Your task to perform on an android device: find which apps use the phone's location Image 0: 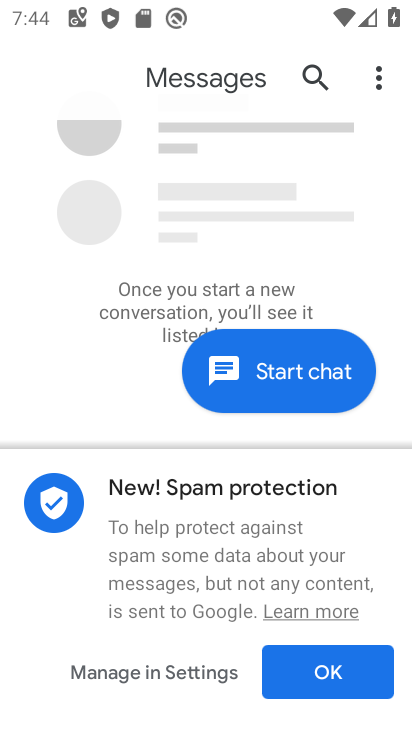
Step 0: press home button
Your task to perform on an android device: find which apps use the phone's location Image 1: 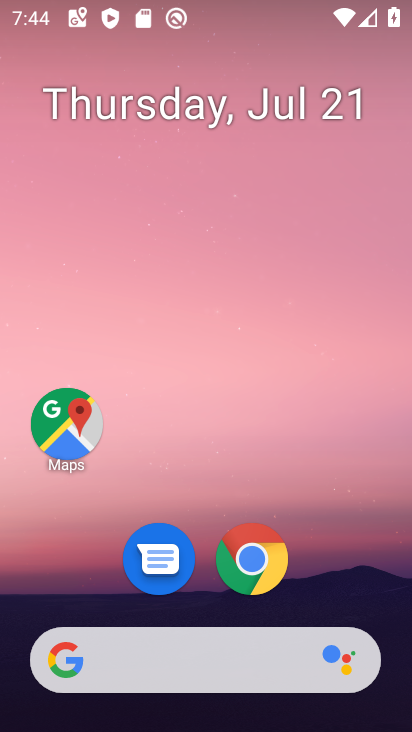
Step 1: drag from (225, 448) to (291, 179)
Your task to perform on an android device: find which apps use the phone's location Image 2: 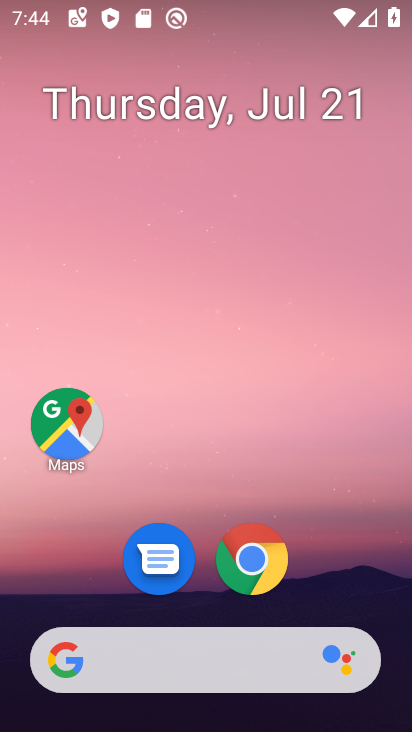
Step 2: drag from (189, 624) to (267, 15)
Your task to perform on an android device: find which apps use the phone's location Image 3: 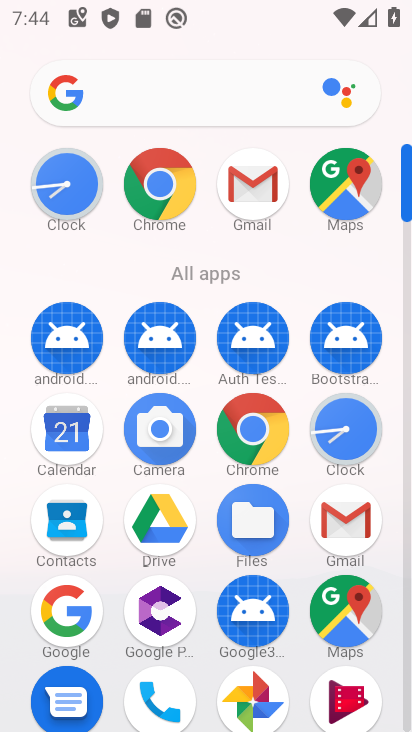
Step 3: drag from (147, 455) to (251, 85)
Your task to perform on an android device: find which apps use the phone's location Image 4: 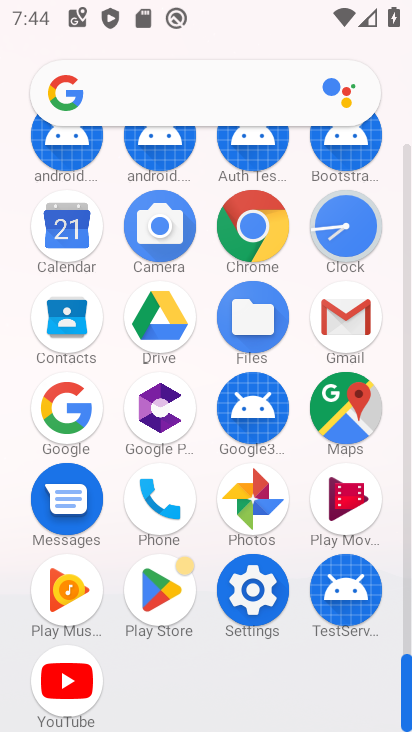
Step 4: click (233, 597)
Your task to perform on an android device: find which apps use the phone's location Image 5: 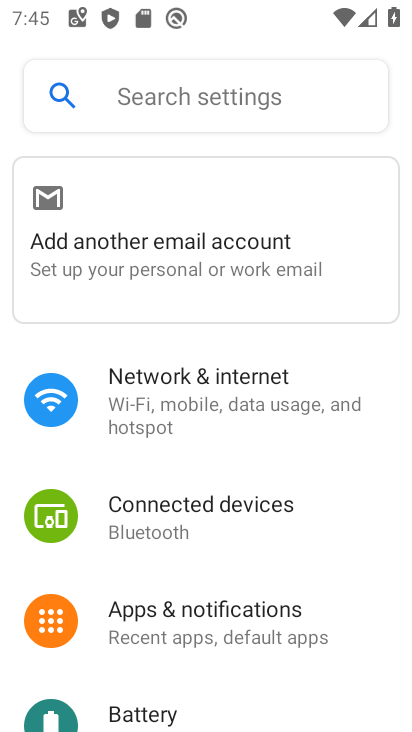
Step 5: drag from (209, 559) to (314, 12)
Your task to perform on an android device: find which apps use the phone's location Image 6: 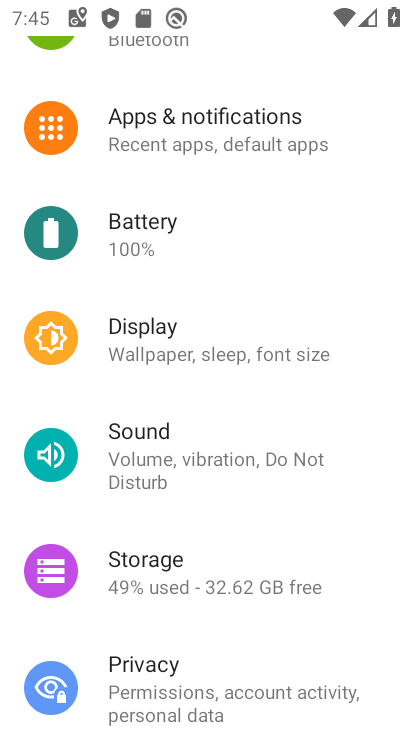
Step 6: drag from (237, 545) to (283, 226)
Your task to perform on an android device: find which apps use the phone's location Image 7: 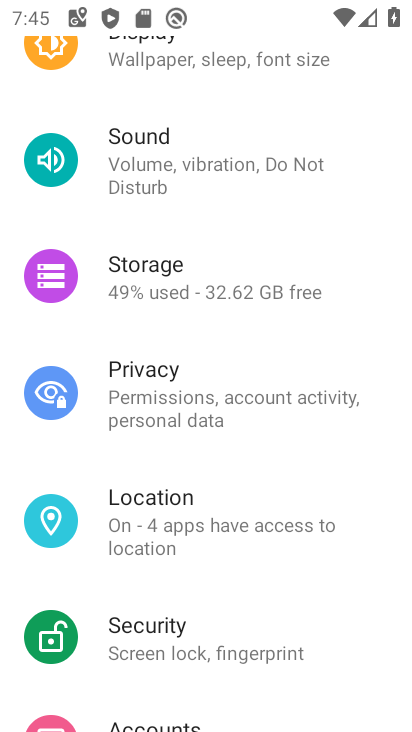
Step 7: click (232, 538)
Your task to perform on an android device: find which apps use the phone's location Image 8: 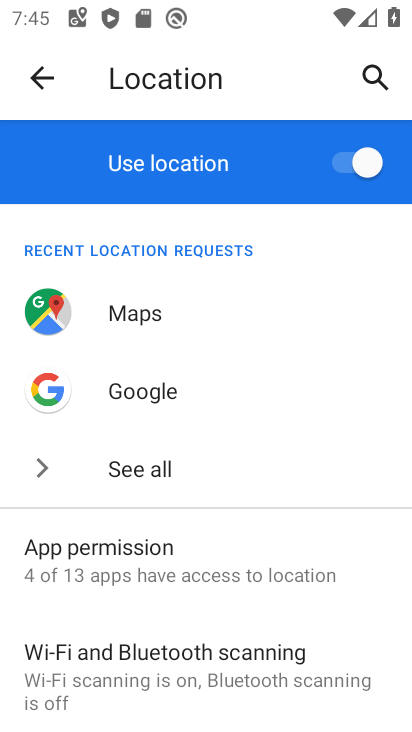
Step 8: click (205, 560)
Your task to perform on an android device: find which apps use the phone's location Image 9: 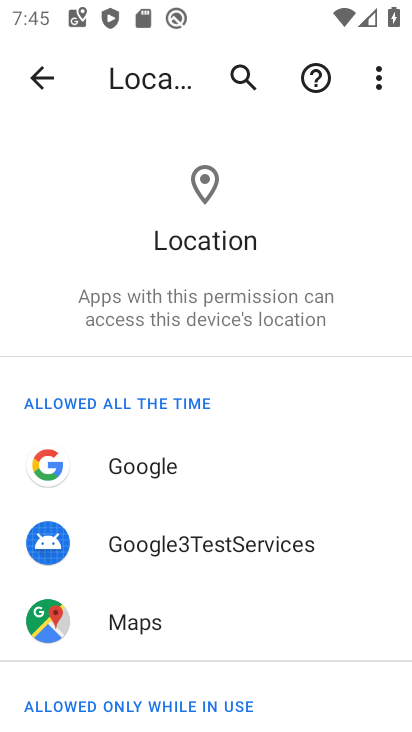
Step 9: task complete